Your task to perform on an android device: turn on priority inbox in the gmail app Image 0: 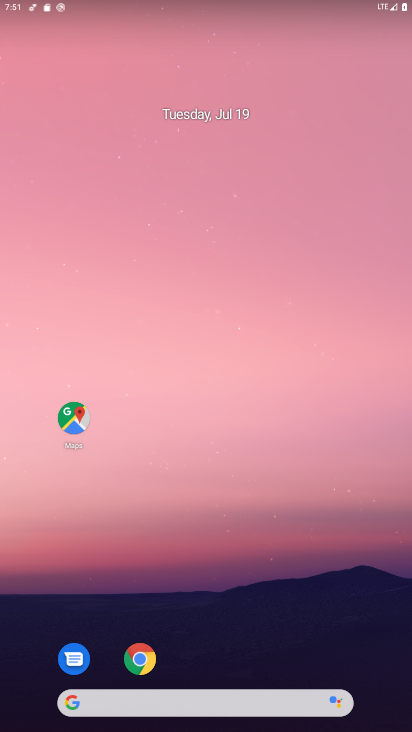
Step 0: drag from (219, 673) to (364, 125)
Your task to perform on an android device: turn on priority inbox in the gmail app Image 1: 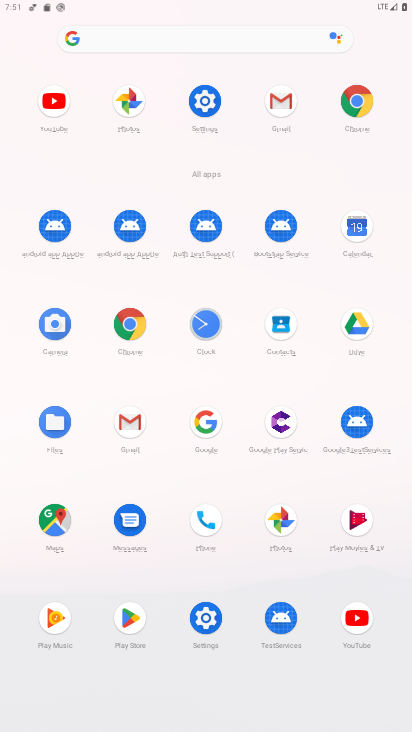
Step 1: click (118, 418)
Your task to perform on an android device: turn on priority inbox in the gmail app Image 2: 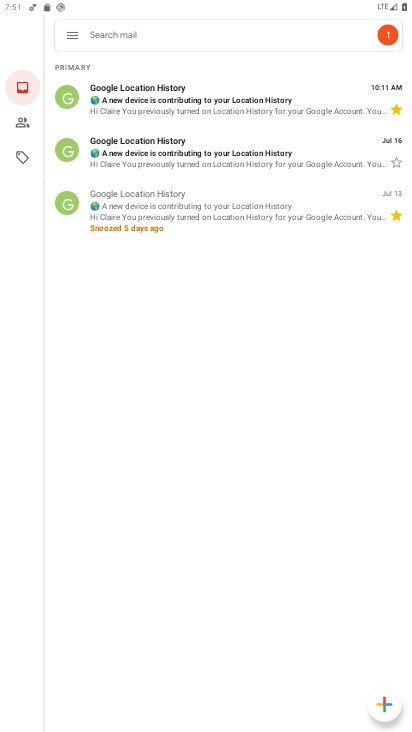
Step 2: click (64, 23)
Your task to perform on an android device: turn on priority inbox in the gmail app Image 3: 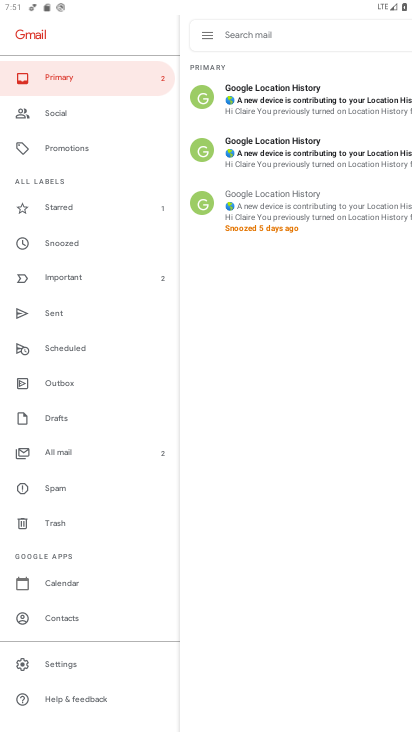
Step 3: click (52, 666)
Your task to perform on an android device: turn on priority inbox in the gmail app Image 4: 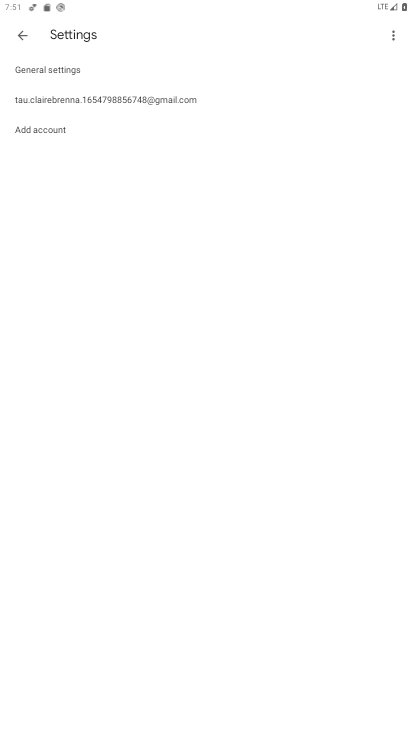
Step 4: click (84, 95)
Your task to perform on an android device: turn on priority inbox in the gmail app Image 5: 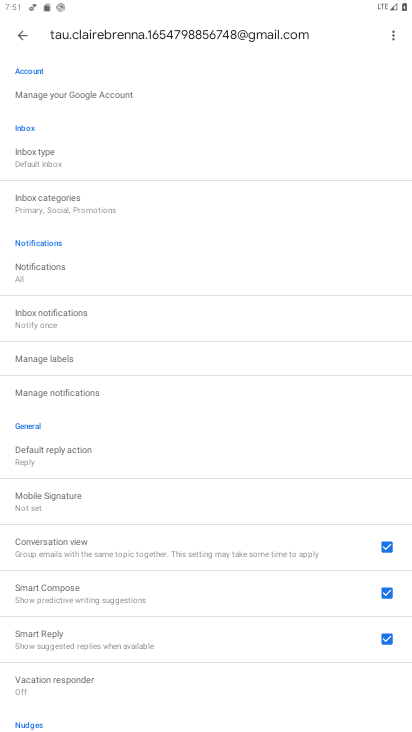
Step 5: click (72, 210)
Your task to perform on an android device: turn on priority inbox in the gmail app Image 6: 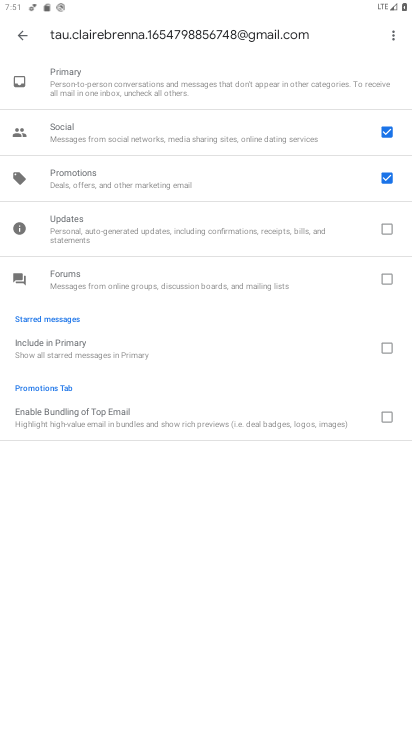
Step 6: click (383, 137)
Your task to perform on an android device: turn on priority inbox in the gmail app Image 7: 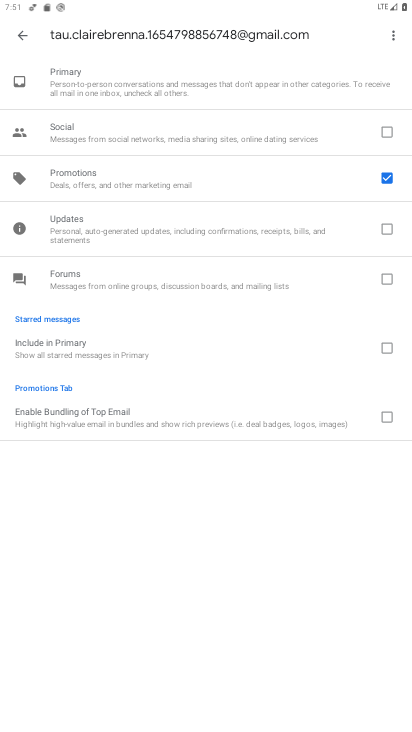
Step 7: click (380, 186)
Your task to perform on an android device: turn on priority inbox in the gmail app Image 8: 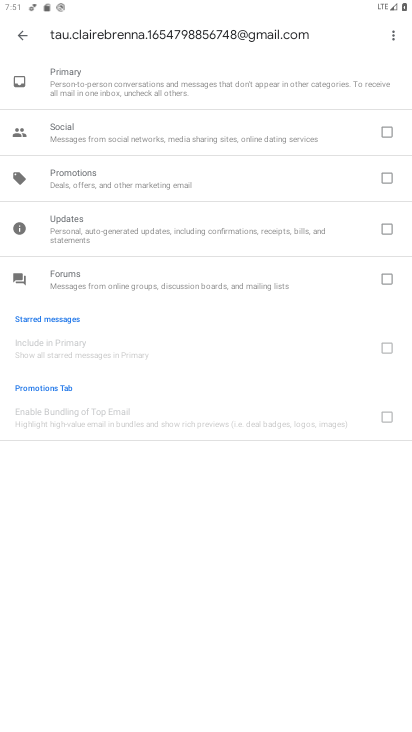
Step 8: task complete